Your task to perform on an android device: open app "Google Find My Device" Image 0: 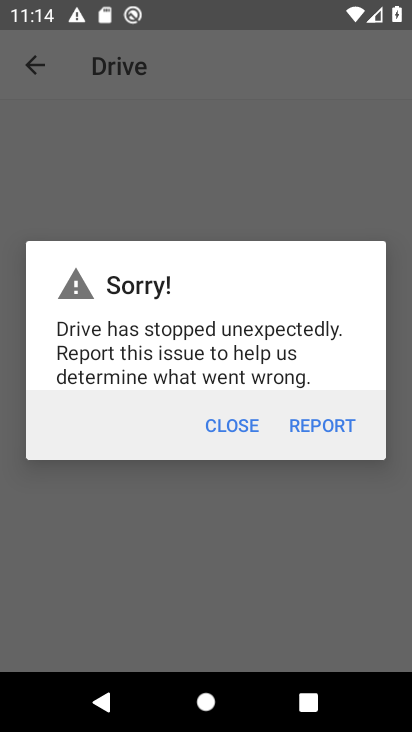
Step 0: press back button
Your task to perform on an android device: open app "Google Find My Device" Image 1: 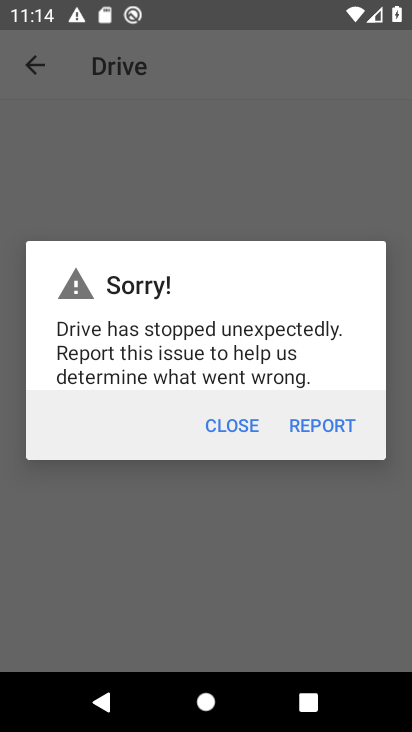
Step 1: press home button
Your task to perform on an android device: open app "Google Find My Device" Image 2: 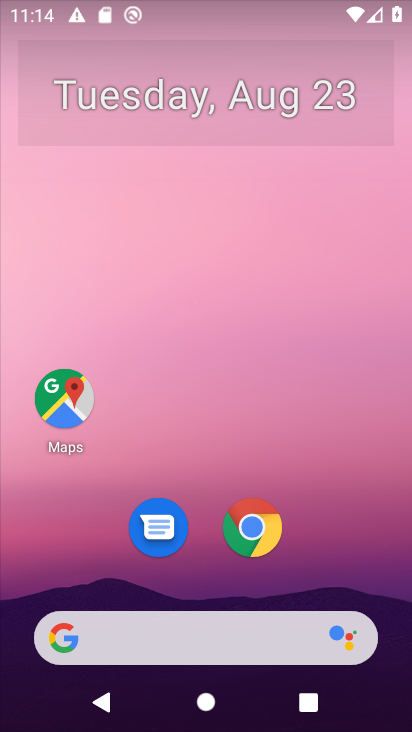
Step 2: drag from (197, 592) to (254, 1)
Your task to perform on an android device: open app "Google Find My Device" Image 3: 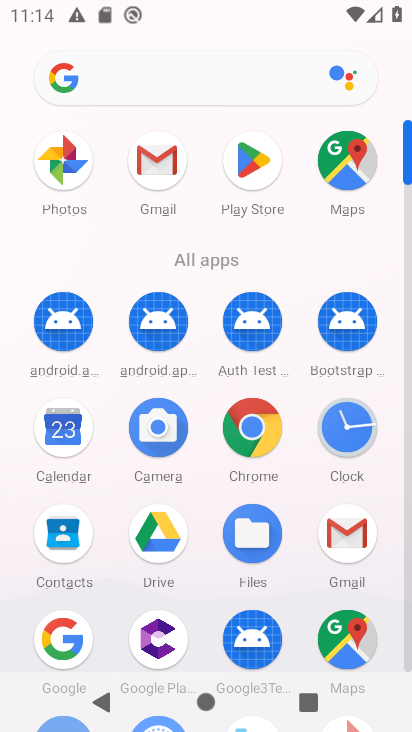
Step 3: click (251, 160)
Your task to perform on an android device: open app "Google Find My Device" Image 4: 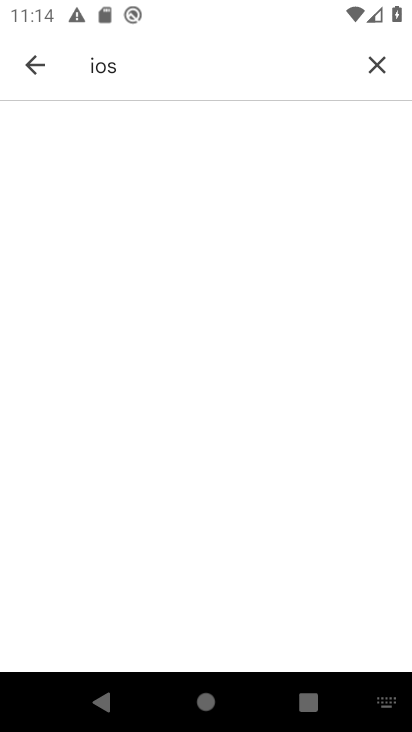
Step 4: click (379, 64)
Your task to perform on an android device: open app "Google Find My Device" Image 5: 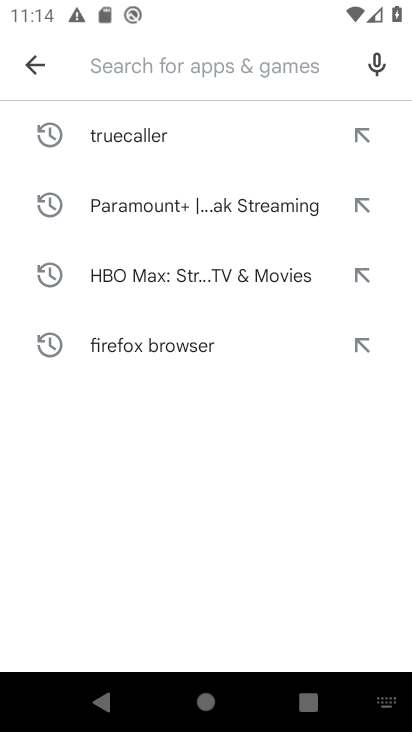
Step 5: click (134, 61)
Your task to perform on an android device: open app "Google Find My Device" Image 6: 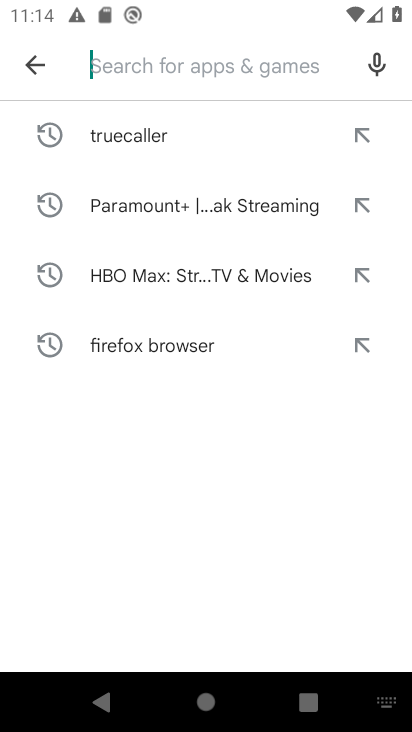
Step 6: type "Google Find My Device"
Your task to perform on an android device: open app "Google Find My Device" Image 7: 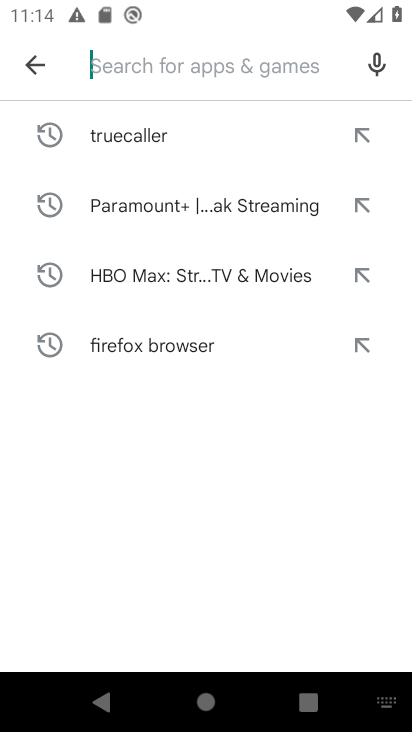
Step 7: click (198, 536)
Your task to perform on an android device: open app "Google Find My Device" Image 8: 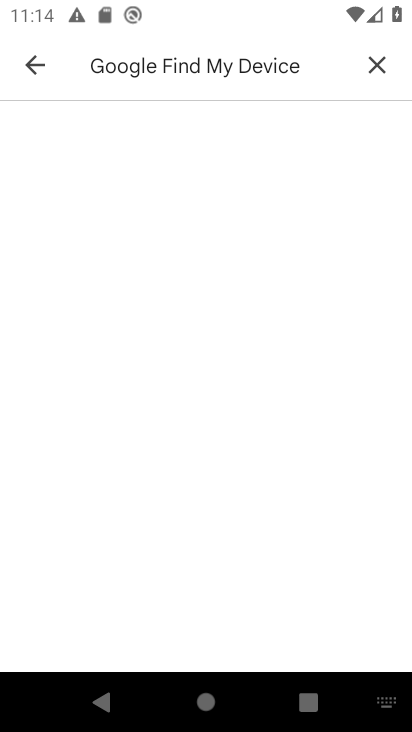
Step 8: task complete